Your task to perform on an android device: Search for seafood restaurants on Google Maps Image 0: 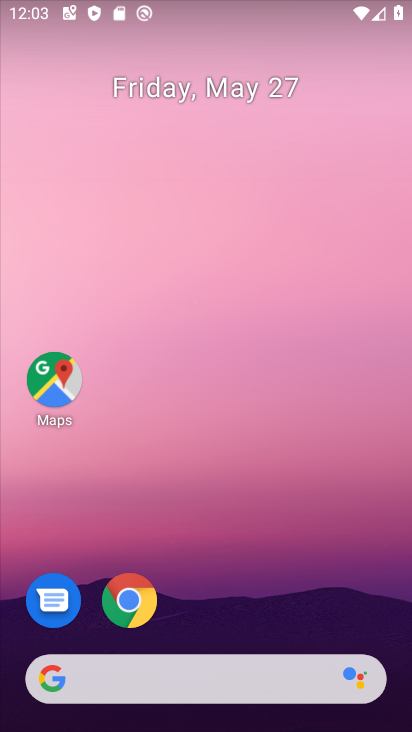
Step 0: drag from (244, 572) to (147, 11)
Your task to perform on an android device: Search for seafood restaurants on Google Maps Image 1: 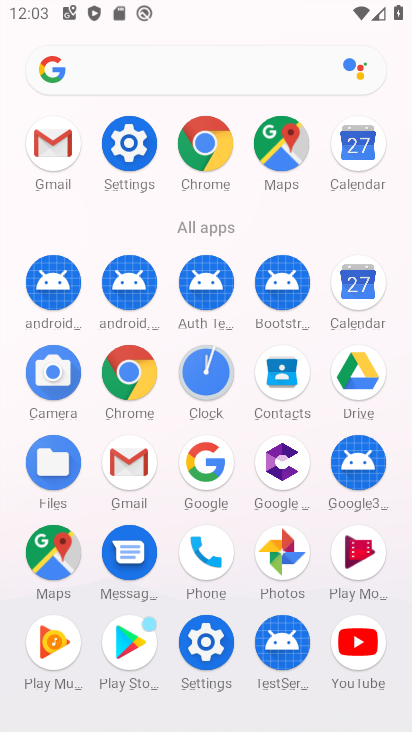
Step 1: drag from (10, 494) to (11, 261)
Your task to perform on an android device: Search for seafood restaurants on Google Maps Image 2: 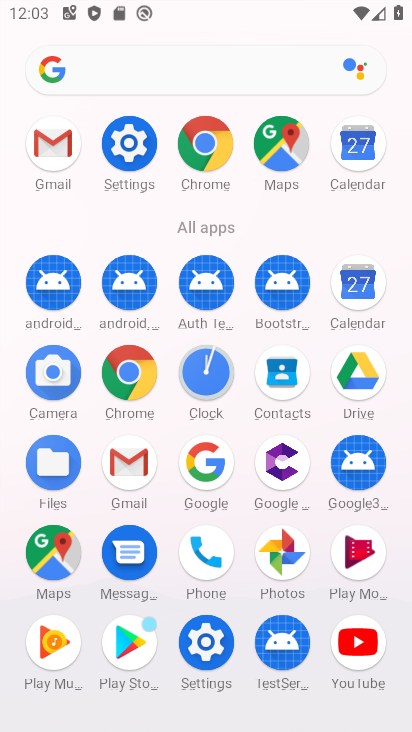
Step 2: click (48, 547)
Your task to perform on an android device: Search for seafood restaurants on Google Maps Image 3: 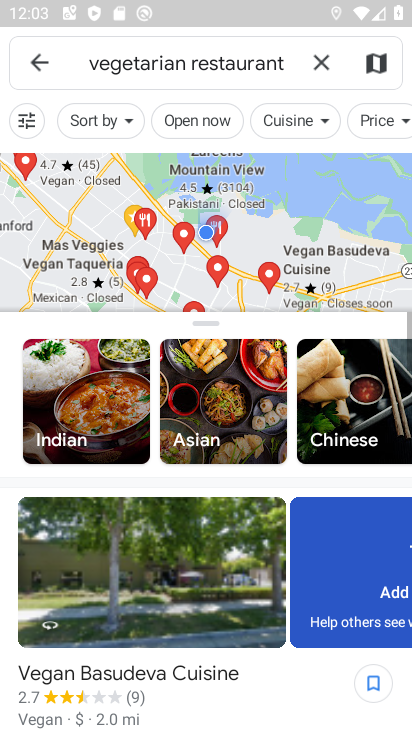
Step 3: click (319, 59)
Your task to perform on an android device: Search for seafood restaurants on Google Maps Image 4: 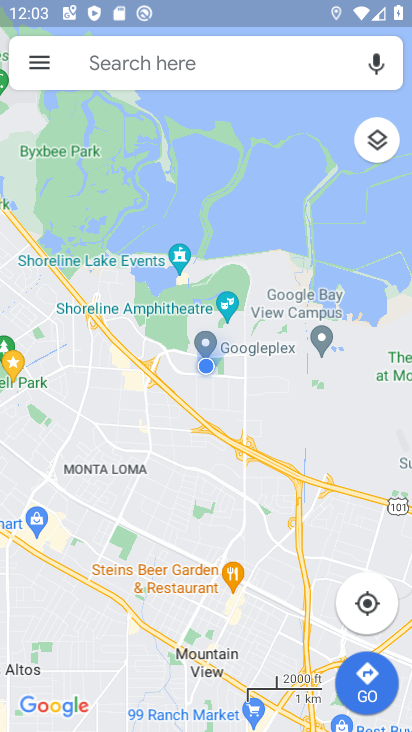
Step 4: click (228, 63)
Your task to perform on an android device: Search for seafood restaurants on Google Maps Image 5: 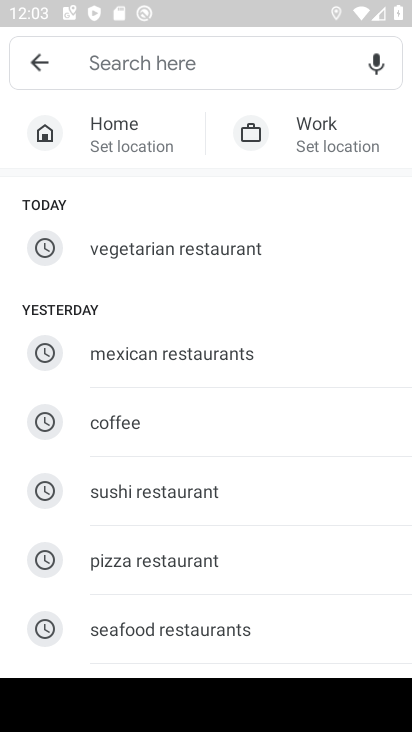
Step 5: drag from (240, 616) to (265, 423)
Your task to perform on an android device: Search for seafood restaurants on Google Maps Image 6: 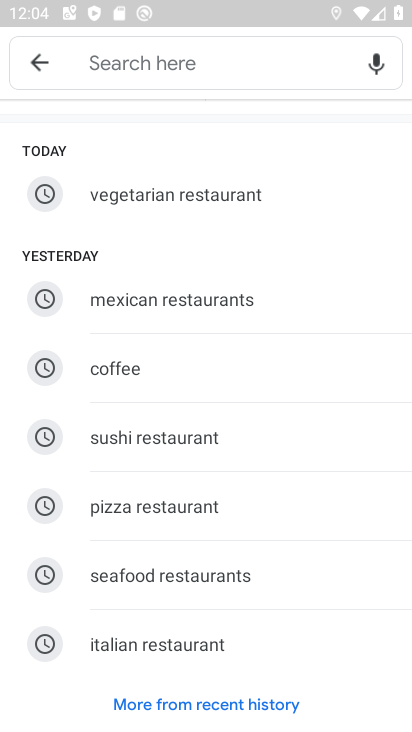
Step 6: click (213, 568)
Your task to perform on an android device: Search for seafood restaurants on Google Maps Image 7: 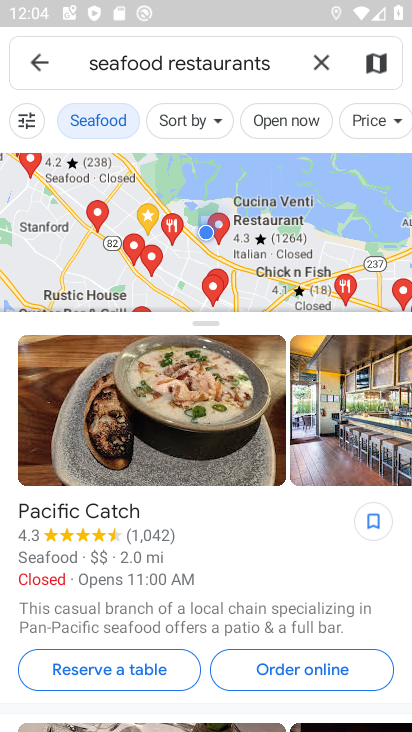
Step 7: task complete